Your task to perform on an android device: search for starred emails in the gmail app Image 0: 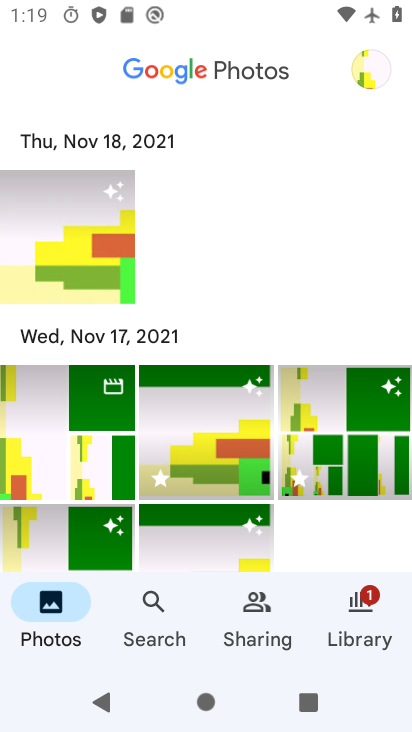
Step 0: press home button
Your task to perform on an android device: search for starred emails in the gmail app Image 1: 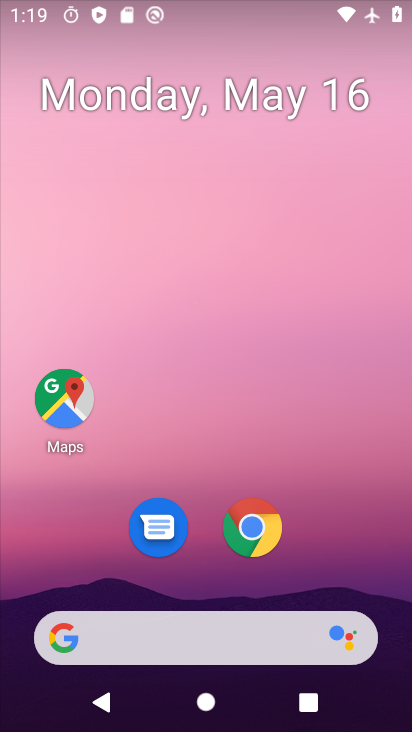
Step 1: drag from (193, 647) to (327, 43)
Your task to perform on an android device: search for starred emails in the gmail app Image 2: 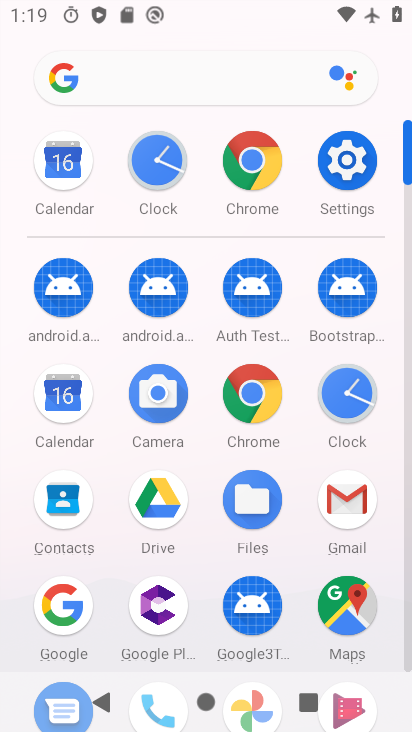
Step 2: click (346, 504)
Your task to perform on an android device: search for starred emails in the gmail app Image 3: 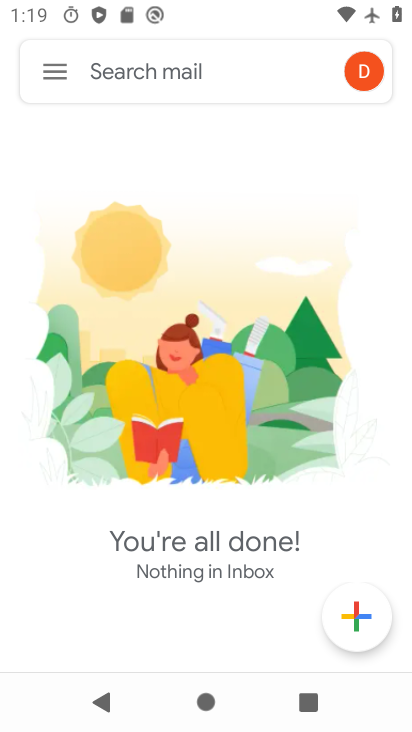
Step 3: click (52, 73)
Your task to perform on an android device: search for starred emails in the gmail app Image 4: 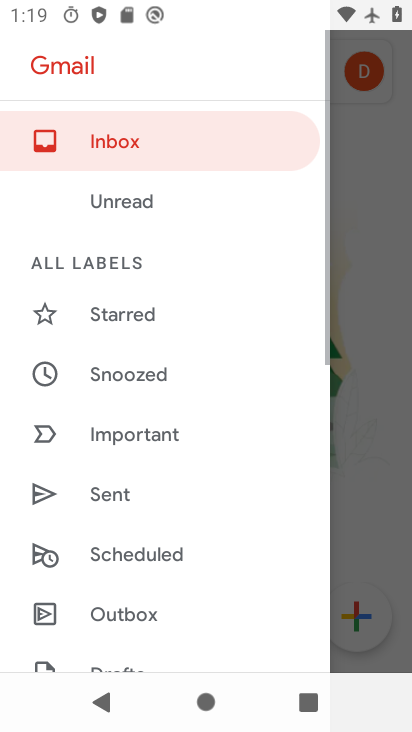
Step 4: click (144, 316)
Your task to perform on an android device: search for starred emails in the gmail app Image 5: 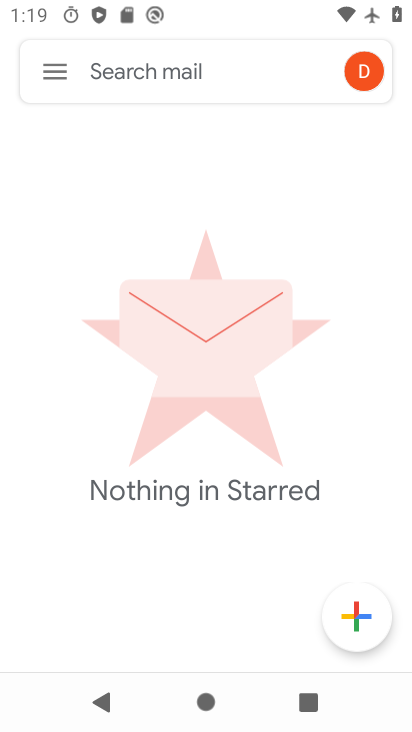
Step 5: task complete